Your task to perform on an android device: Go to Yahoo.com Image 0: 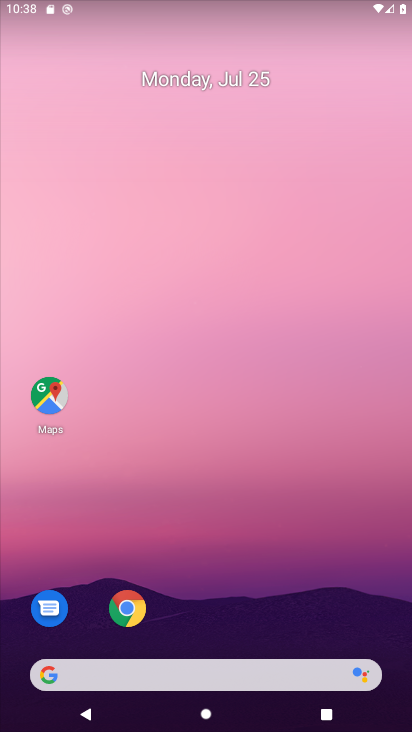
Step 0: drag from (221, 298) to (182, 174)
Your task to perform on an android device: Go to Yahoo.com Image 1: 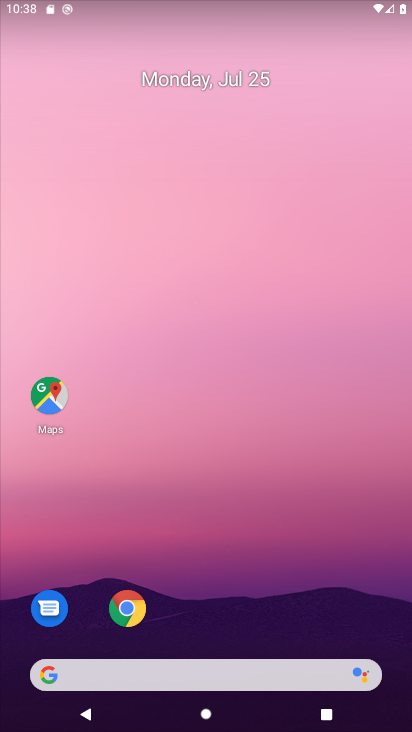
Step 1: drag from (237, 572) to (195, 35)
Your task to perform on an android device: Go to Yahoo.com Image 2: 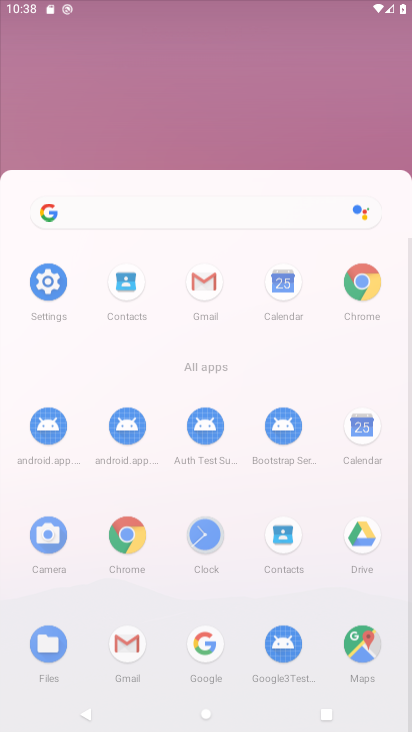
Step 2: drag from (220, 536) to (180, 128)
Your task to perform on an android device: Go to Yahoo.com Image 3: 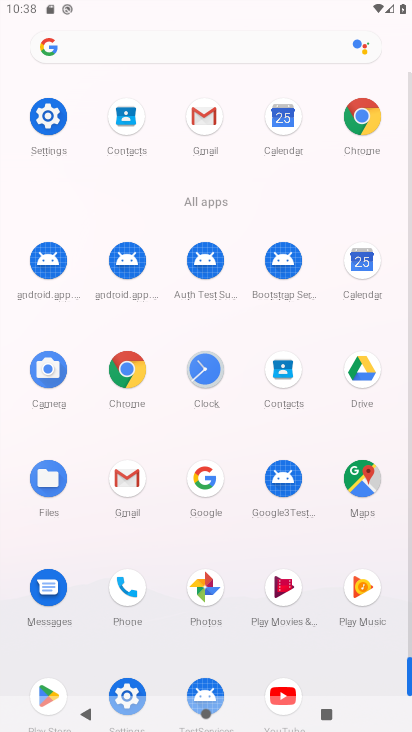
Step 3: drag from (243, 426) to (243, 126)
Your task to perform on an android device: Go to Yahoo.com Image 4: 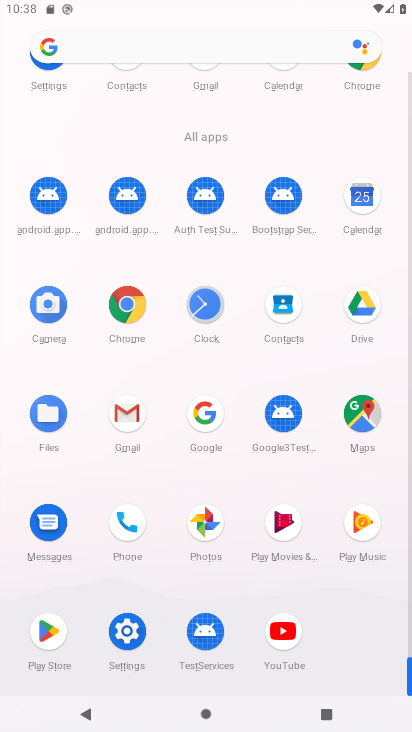
Step 4: click (114, 309)
Your task to perform on an android device: Go to Yahoo.com Image 5: 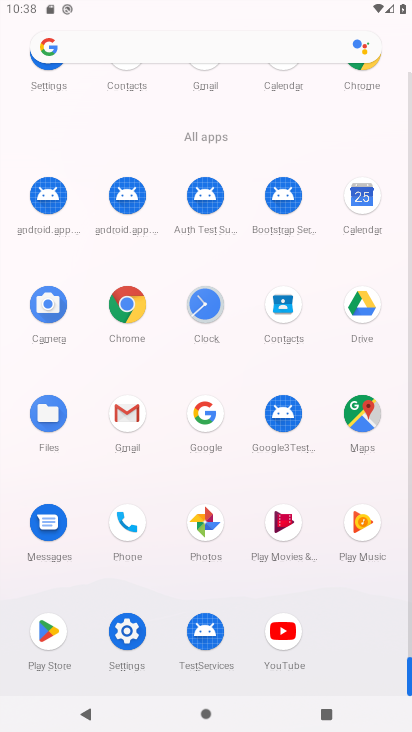
Step 5: click (125, 297)
Your task to perform on an android device: Go to Yahoo.com Image 6: 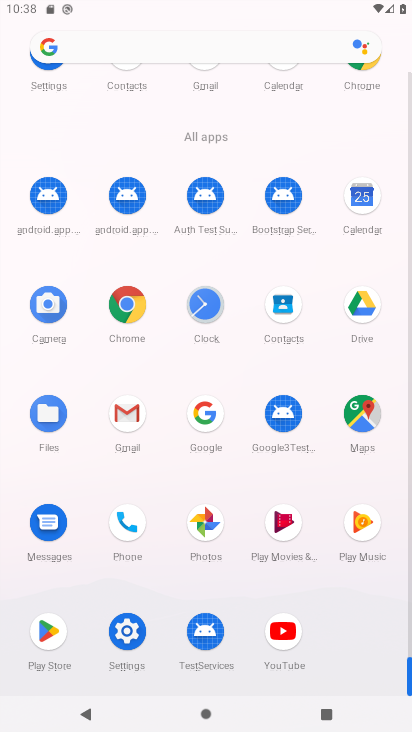
Step 6: click (139, 307)
Your task to perform on an android device: Go to Yahoo.com Image 7: 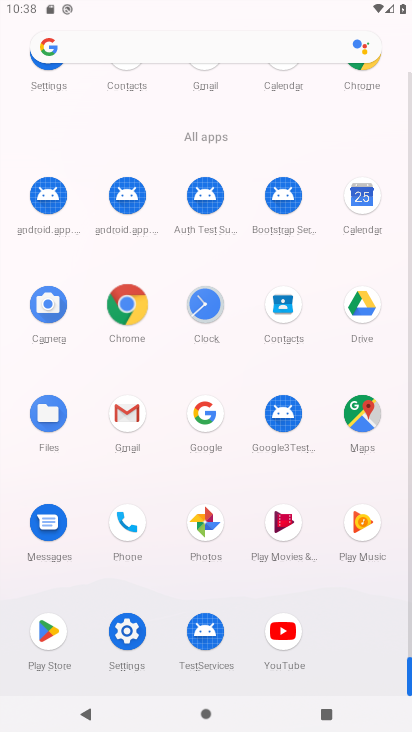
Step 7: click (129, 303)
Your task to perform on an android device: Go to Yahoo.com Image 8: 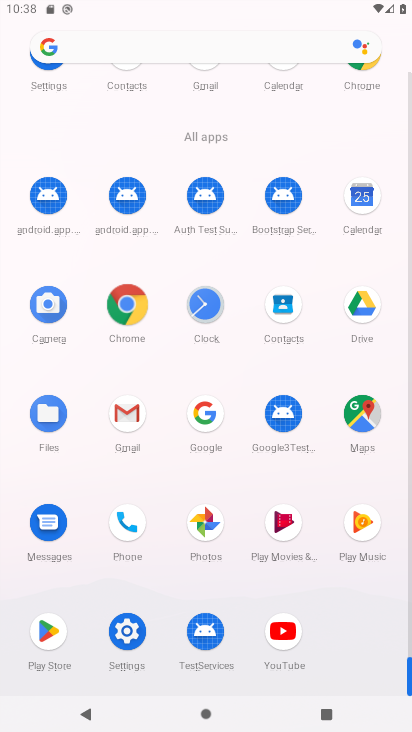
Step 8: click (127, 303)
Your task to perform on an android device: Go to Yahoo.com Image 9: 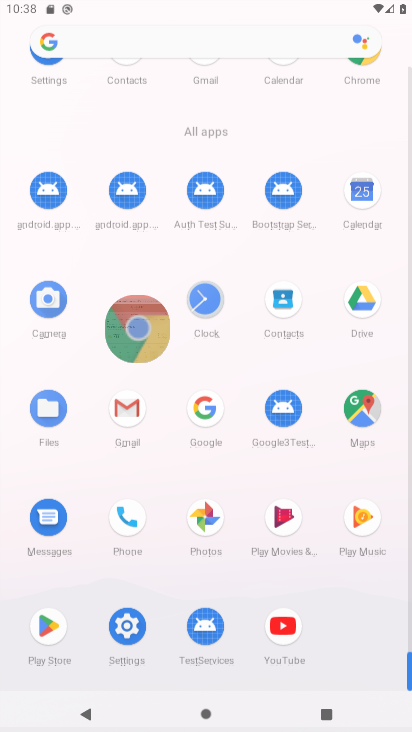
Step 9: click (125, 300)
Your task to perform on an android device: Go to Yahoo.com Image 10: 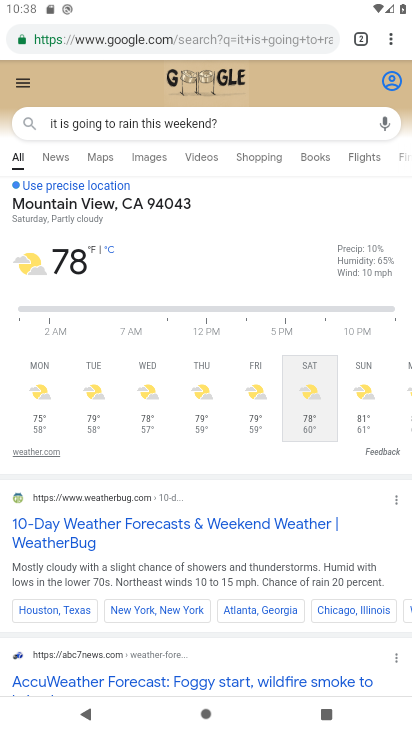
Step 10: click (125, 300)
Your task to perform on an android device: Go to Yahoo.com Image 11: 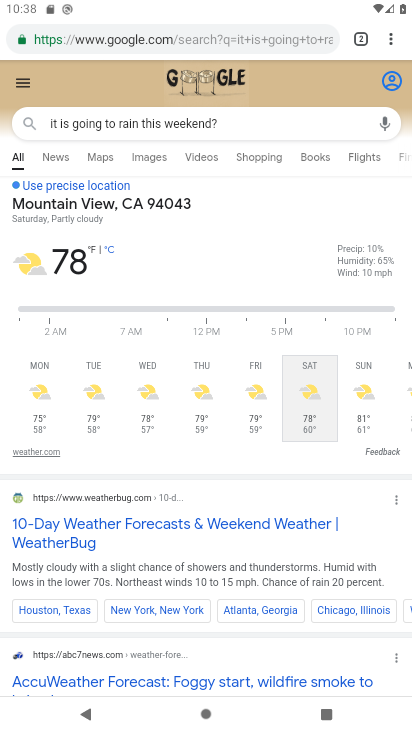
Step 11: click (133, 310)
Your task to perform on an android device: Go to Yahoo.com Image 12: 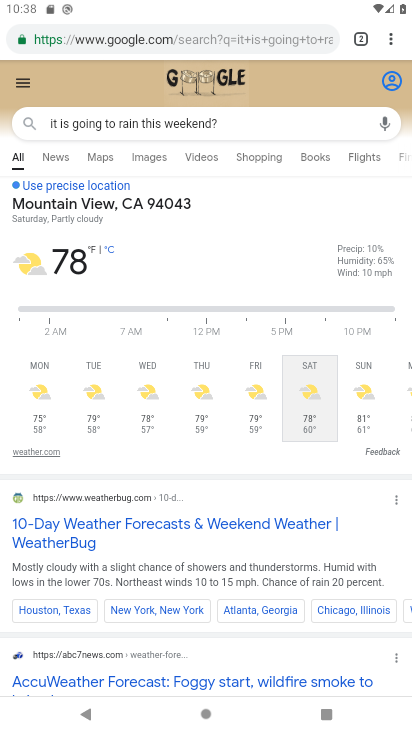
Step 12: click (390, 34)
Your task to perform on an android device: Go to Yahoo.com Image 13: 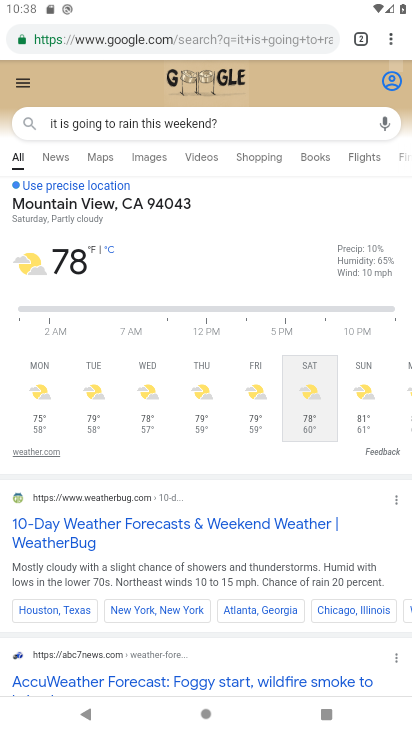
Step 13: click (398, 41)
Your task to perform on an android device: Go to Yahoo.com Image 14: 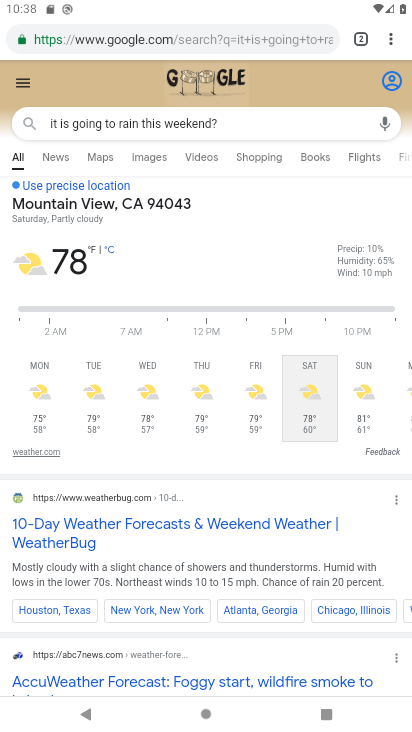
Step 14: drag from (385, 42) to (238, 81)
Your task to perform on an android device: Go to Yahoo.com Image 15: 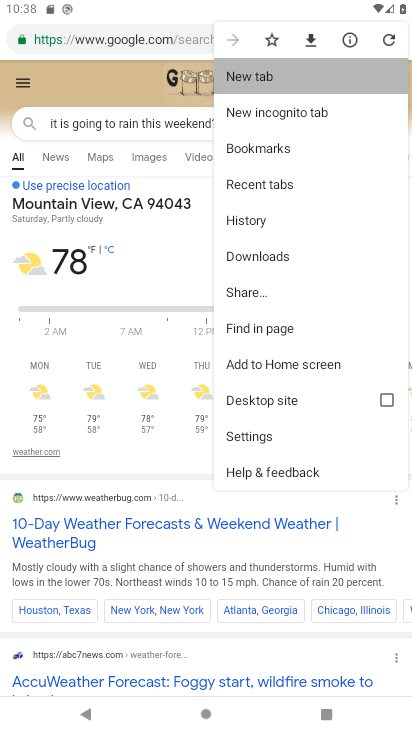
Step 15: click (240, 83)
Your task to perform on an android device: Go to Yahoo.com Image 16: 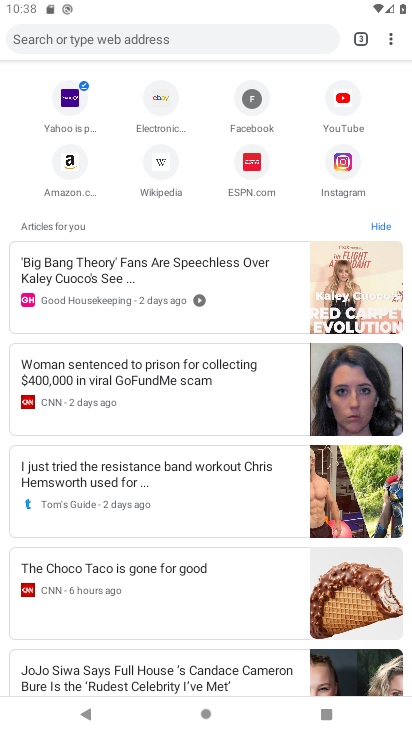
Step 16: click (72, 112)
Your task to perform on an android device: Go to Yahoo.com Image 17: 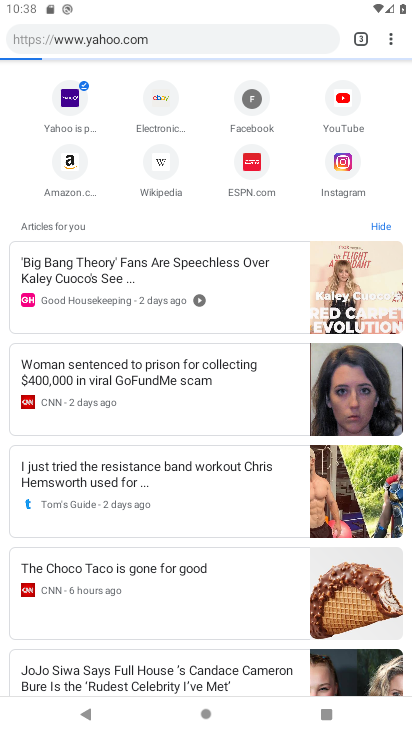
Step 17: click (75, 109)
Your task to perform on an android device: Go to Yahoo.com Image 18: 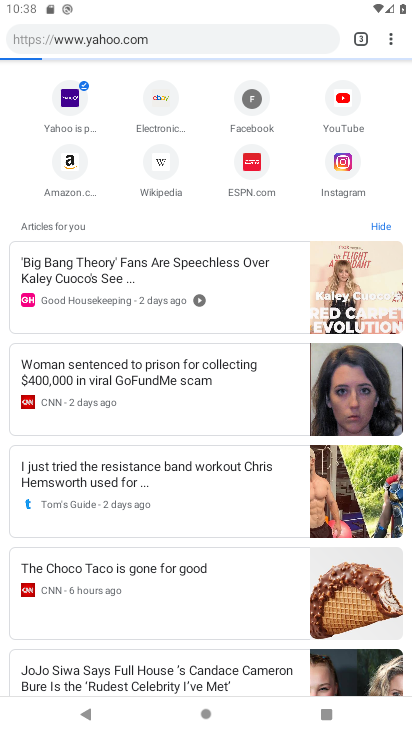
Step 18: click (76, 109)
Your task to perform on an android device: Go to Yahoo.com Image 19: 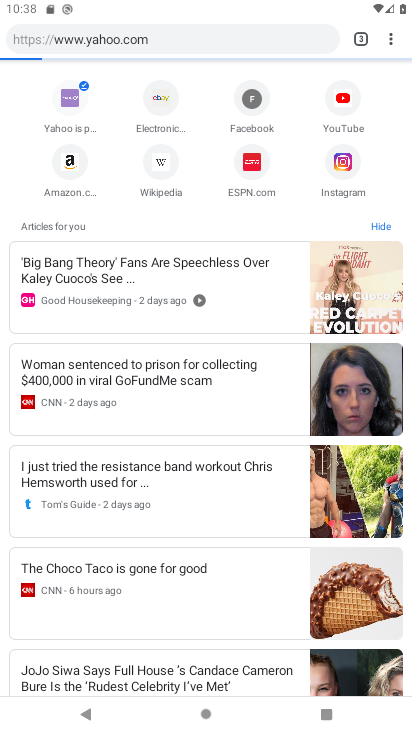
Step 19: click (78, 106)
Your task to perform on an android device: Go to Yahoo.com Image 20: 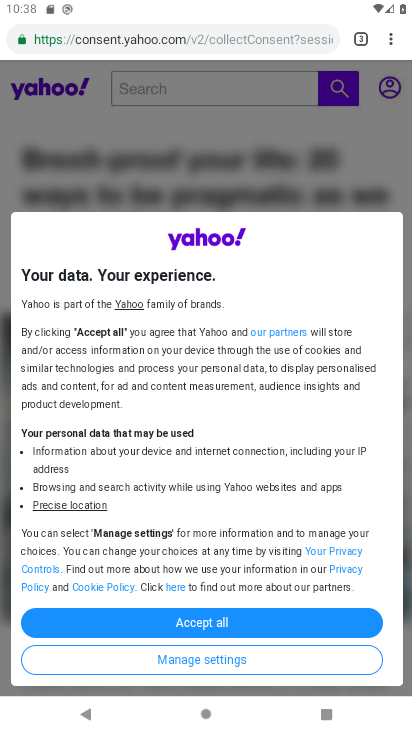
Step 20: task complete